Your task to perform on an android device: change your default location settings in chrome Image 0: 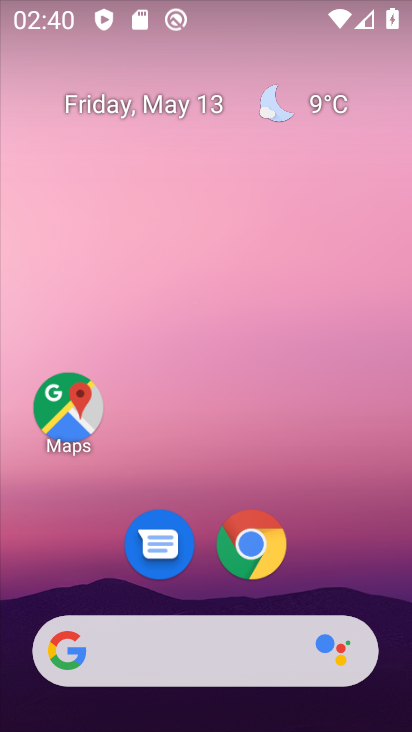
Step 0: drag from (340, 553) to (230, 32)
Your task to perform on an android device: change your default location settings in chrome Image 1: 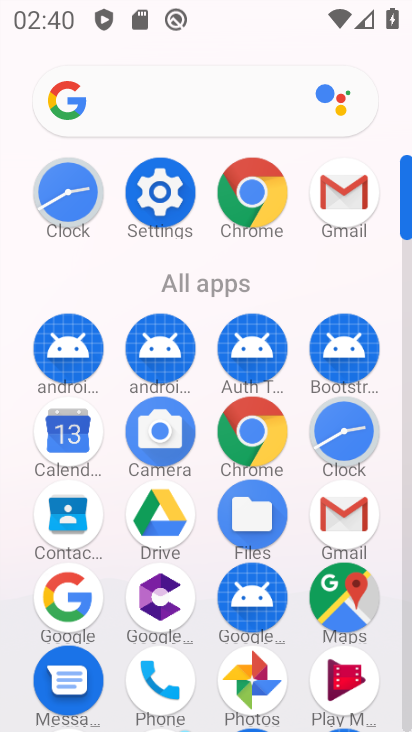
Step 1: drag from (12, 565) to (5, 286)
Your task to perform on an android device: change your default location settings in chrome Image 2: 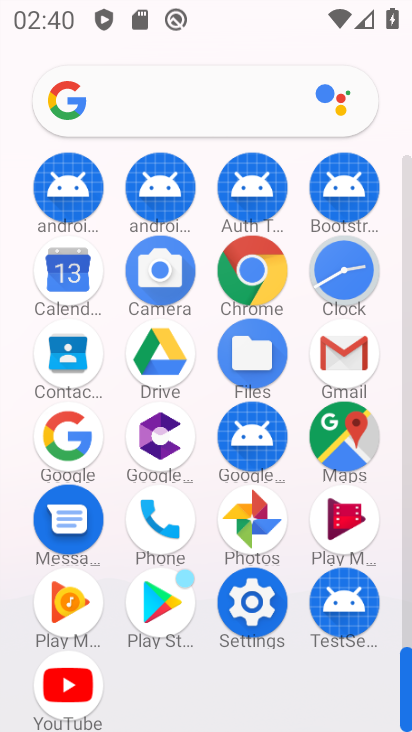
Step 2: click (251, 267)
Your task to perform on an android device: change your default location settings in chrome Image 3: 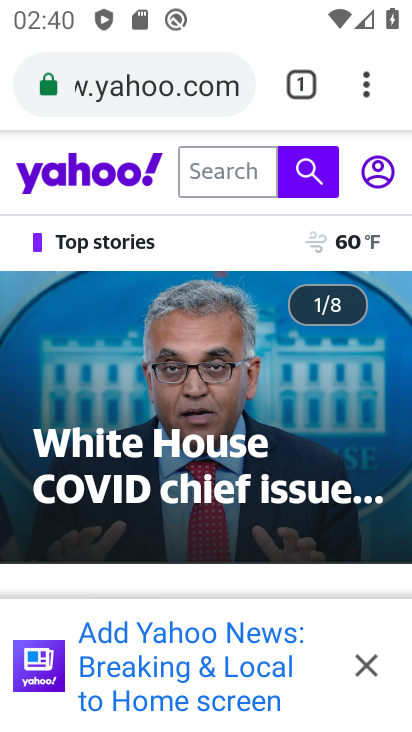
Step 3: drag from (365, 88) to (123, 589)
Your task to perform on an android device: change your default location settings in chrome Image 4: 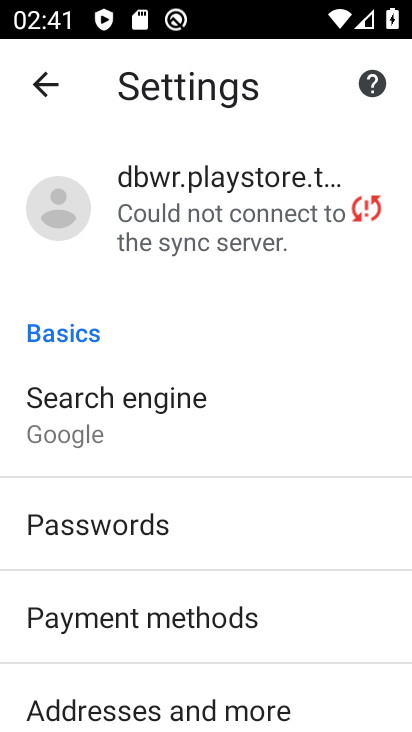
Step 4: drag from (234, 601) to (223, 188)
Your task to perform on an android device: change your default location settings in chrome Image 5: 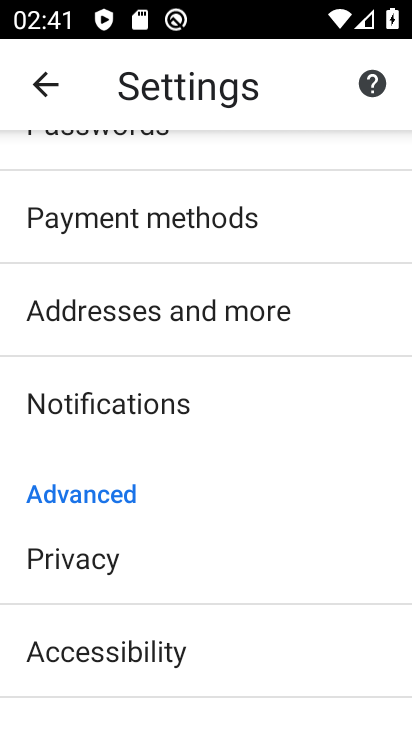
Step 5: drag from (195, 594) to (195, 248)
Your task to perform on an android device: change your default location settings in chrome Image 6: 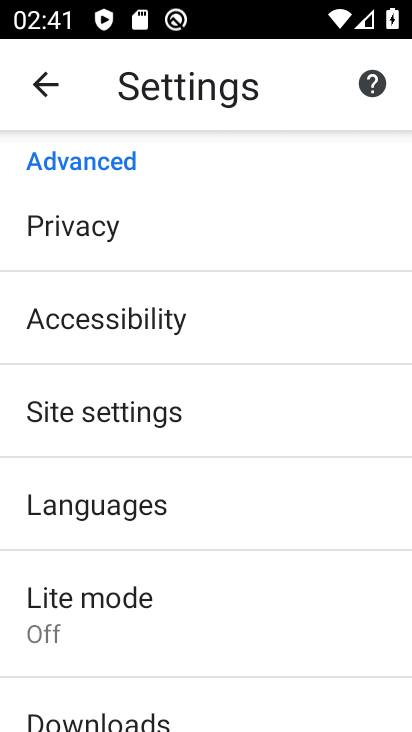
Step 6: drag from (192, 537) to (207, 230)
Your task to perform on an android device: change your default location settings in chrome Image 7: 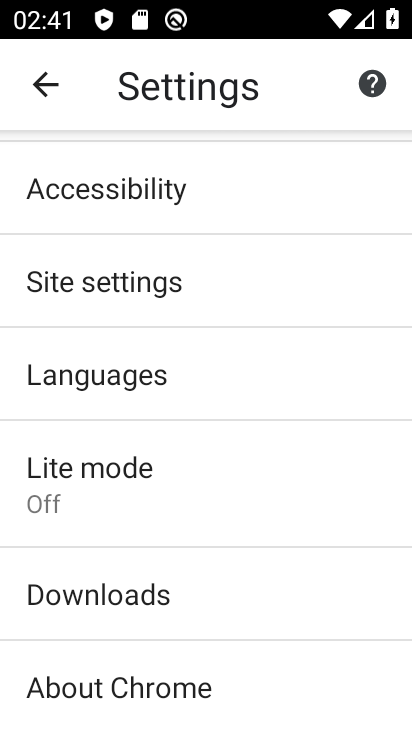
Step 7: drag from (253, 519) to (254, 194)
Your task to perform on an android device: change your default location settings in chrome Image 8: 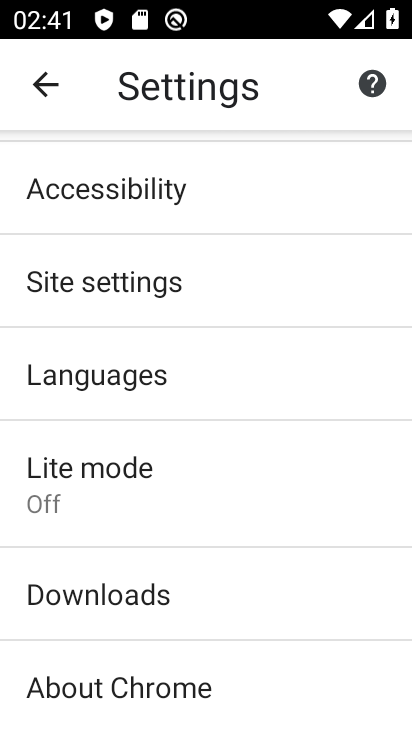
Step 8: drag from (277, 544) to (272, 208)
Your task to perform on an android device: change your default location settings in chrome Image 9: 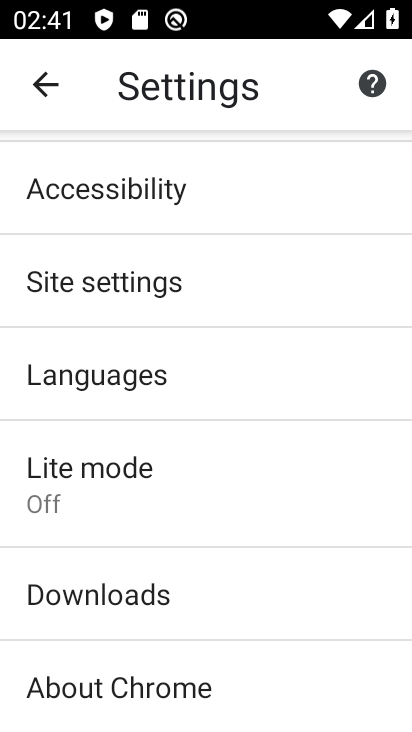
Step 9: drag from (246, 544) to (237, 106)
Your task to perform on an android device: change your default location settings in chrome Image 10: 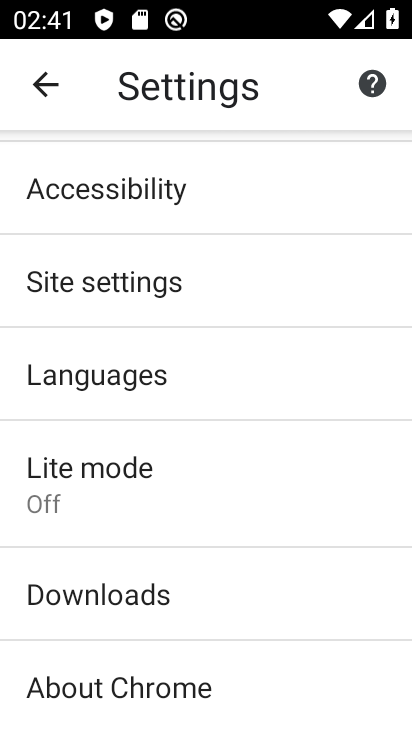
Step 10: drag from (218, 510) to (229, 209)
Your task to perform on an android device: change your default location settings in chrome Image 11: 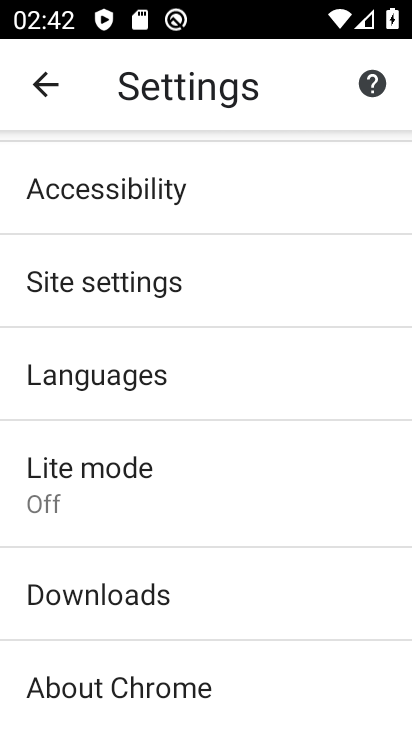
Step 11: drag from (230, 559) to (226, 257)
Your task to perform on an android device: change your default location settings in chrome Image 12: 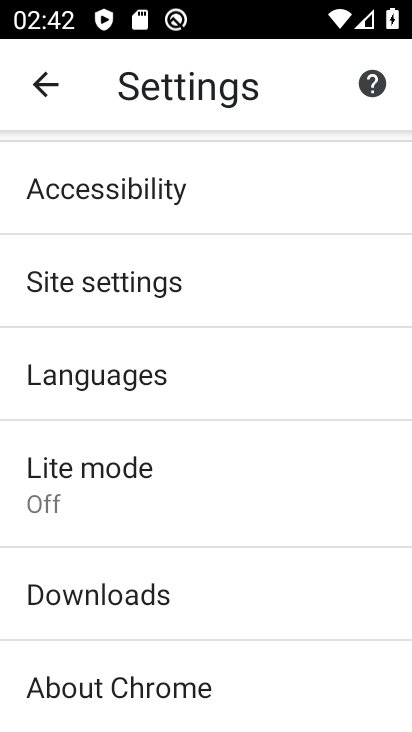
Step 12: click (166, 271)
Your task to perform on an android device: change your default location settings in chrome Image 13: 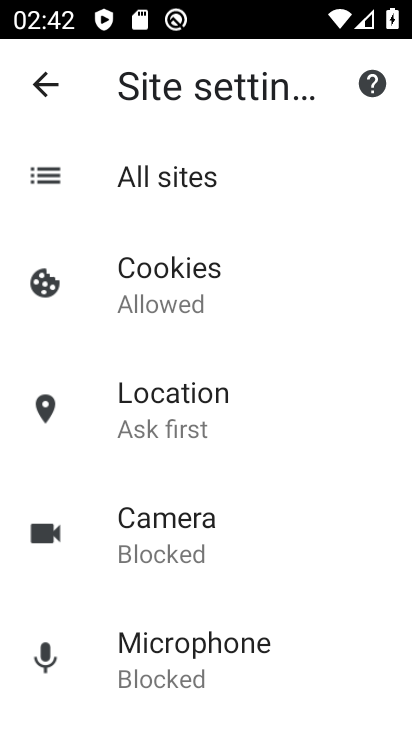
Step 13: click (220, 416)
Your task to perform on an android device: change your default location settings in chrome Image 14: 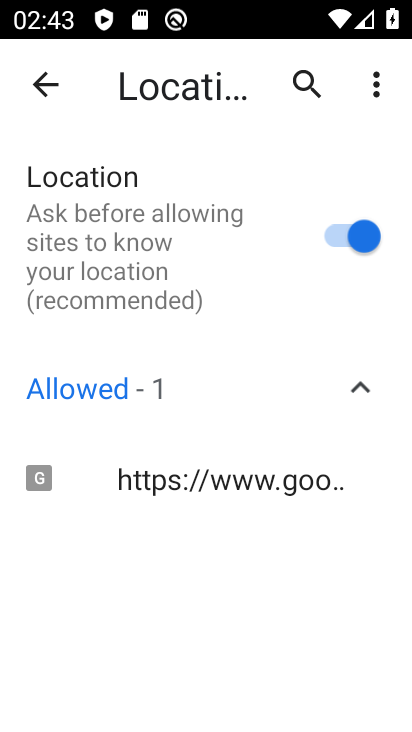
Step 14: task complete